Your task to perform on an android device: clear history in the chrome app Image 0: 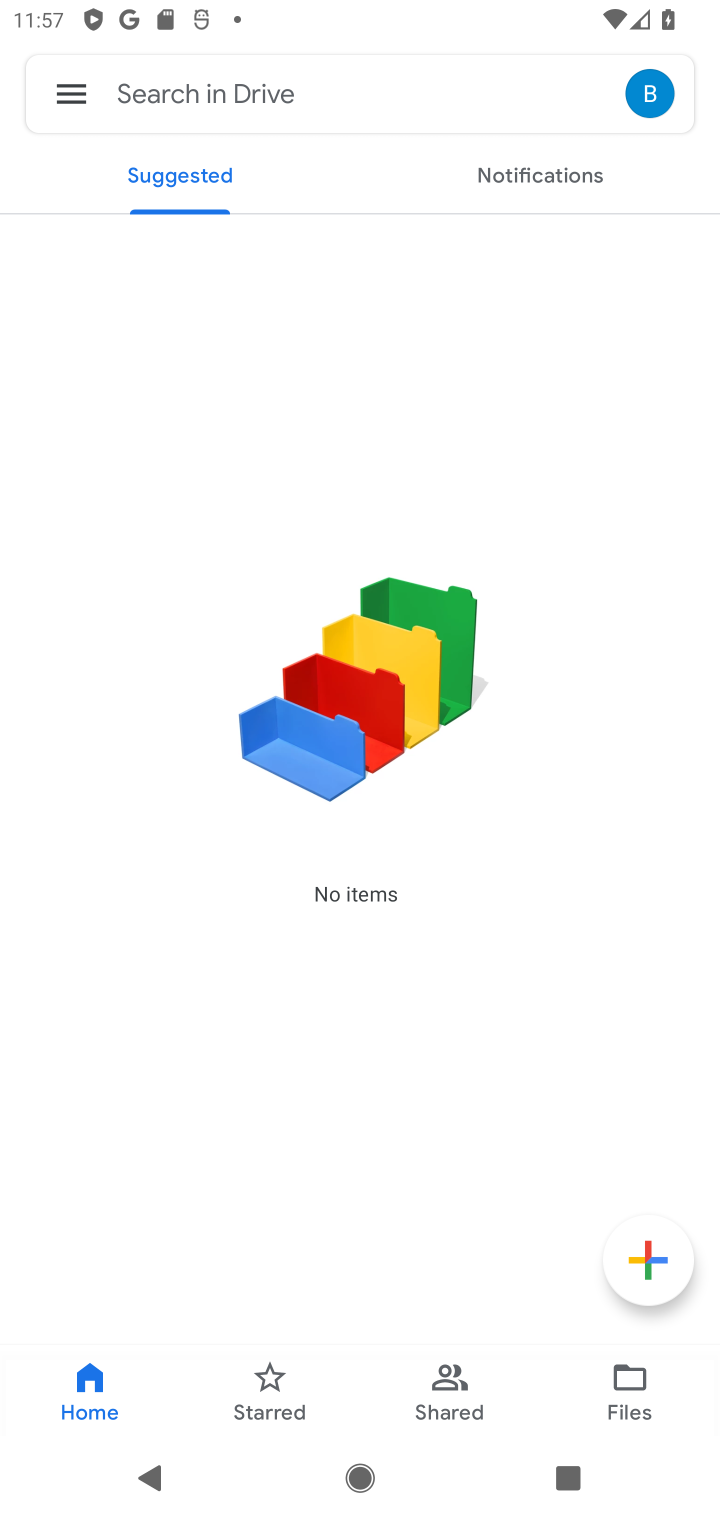
Step 0: task complete